Your task to perform on an android device: check out phone information Image 0: 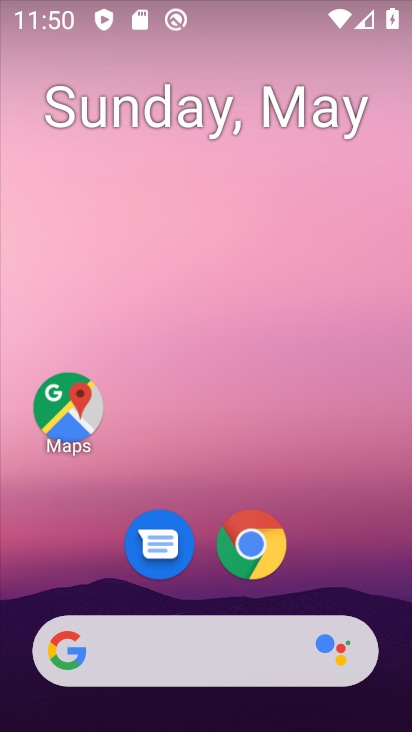
Step 0: drag from (367, 623) to (262, 7)
Your task to perform on an android device: check out phone information Image 1: 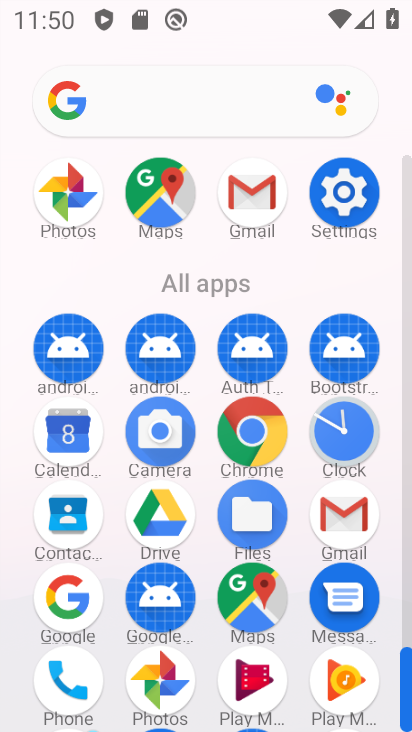
Step 1: drag from (294, 652) to (292, 160)
Your task to perform on an android device: check out phone information Image 2: 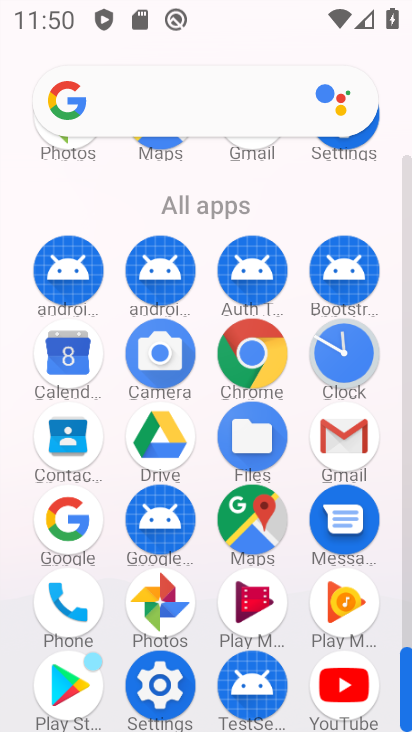
Step 2: click (182, 687)
Your task to perform on an android device: check out phone information Image 3: 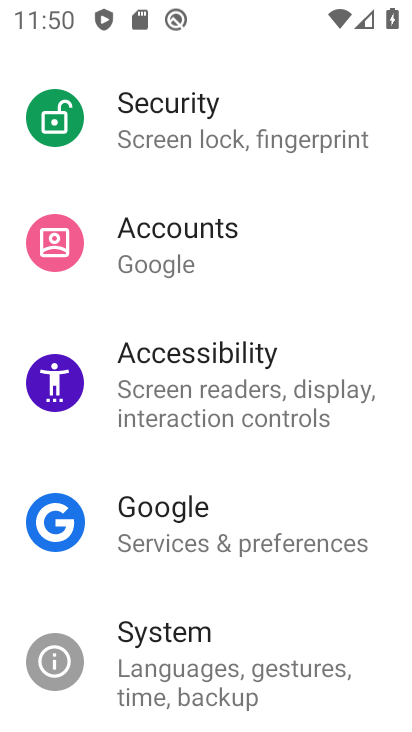
Step 3: drag from (306, 711) to (327, 108)
Your task to perform on an android device: check out phone information Image 4: 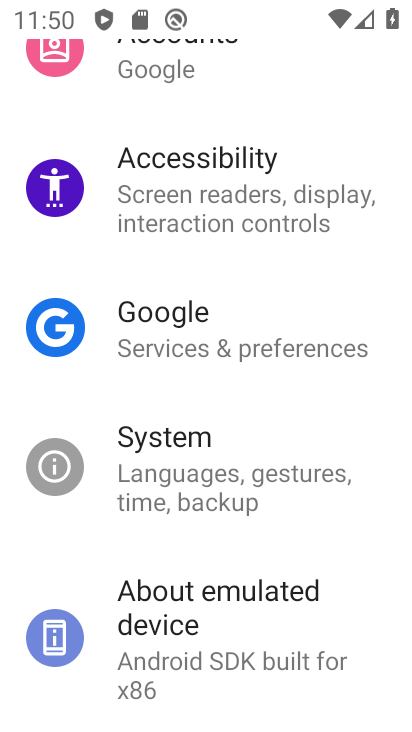
Step 4: click (289, 633)
Your task to perform on an android device: check out phone information Image 5: 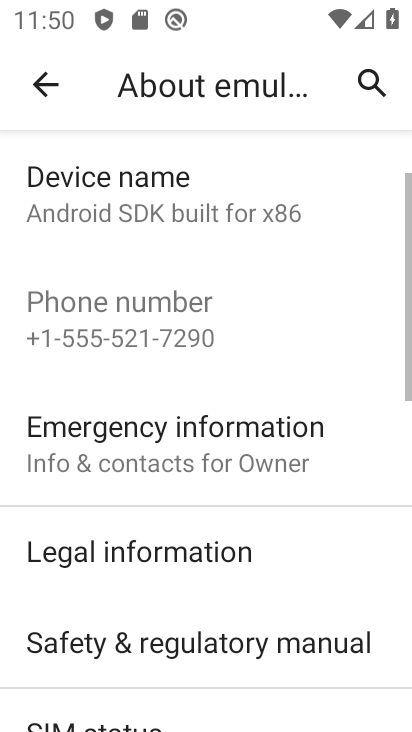
Step 5: task complete